Your task to perform on an android device: install app "Booking.com: Hotels and more" Image 0: 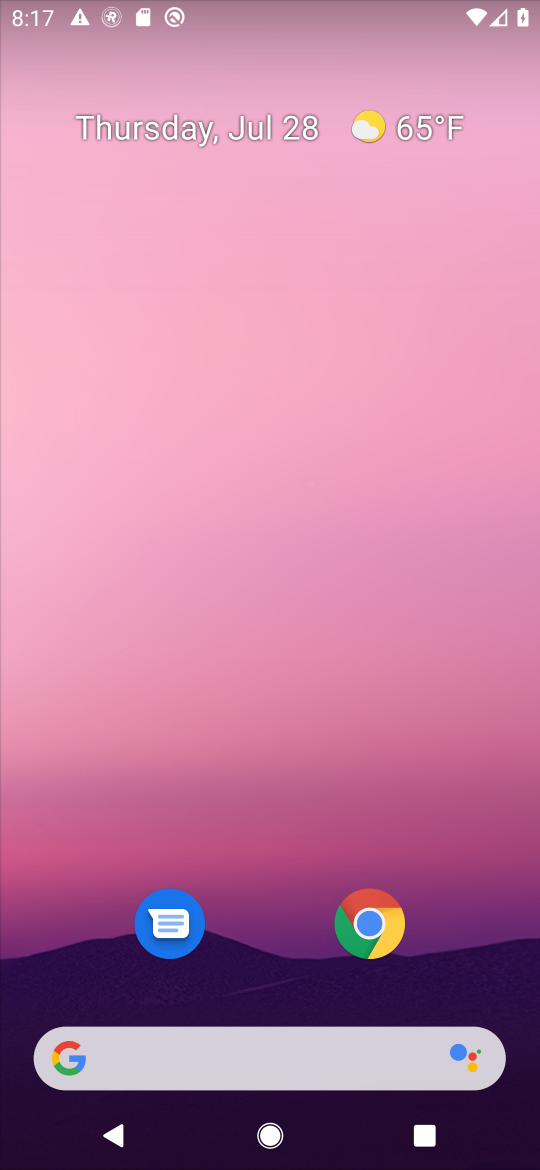
Step 0: drag from (457, 889) to (427, 178)
Your task to perform on an android device: install app "Booking.com: Hotels and more" Image 1: 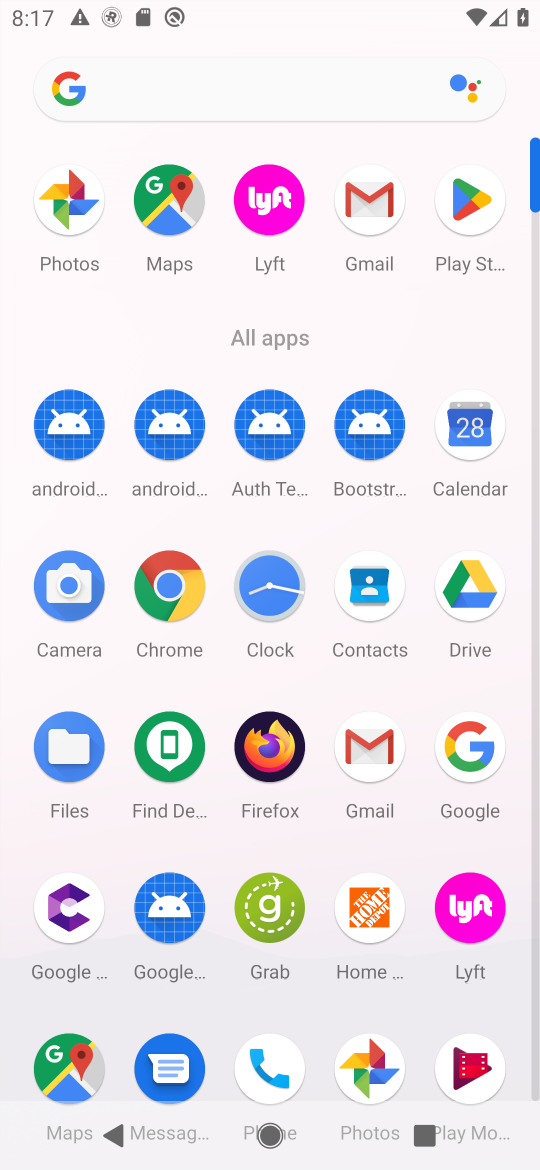
Step 1: click (466, 213)
Your task to perform on an android device: install app "Booking.com: Hotels and more" Image 2: 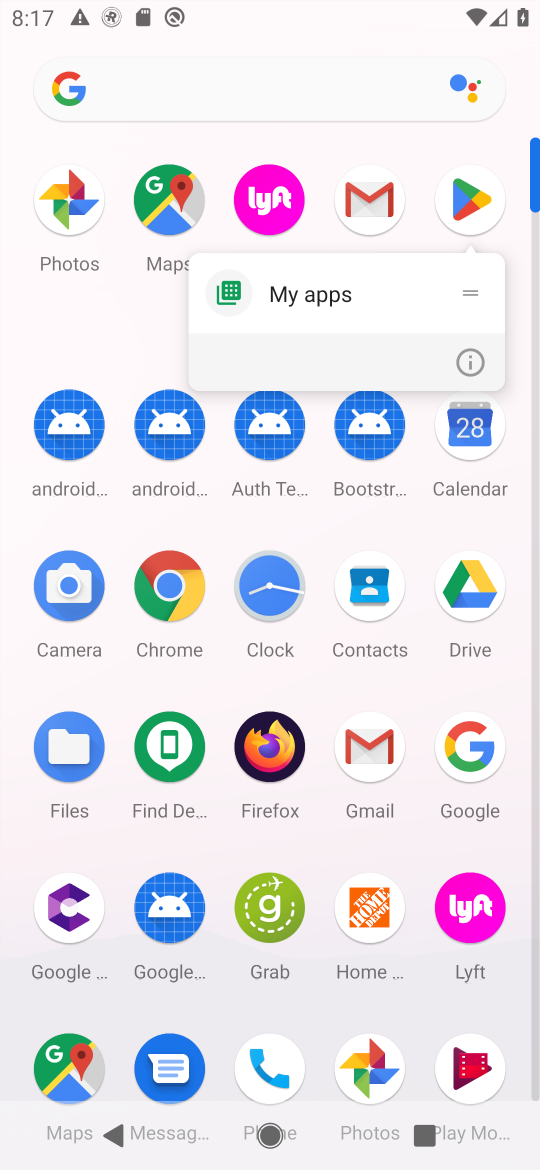
Step 2: click (466, 213)
Your task to perform on an android device: install app "Booking.com: Hotels and more" Image 3: 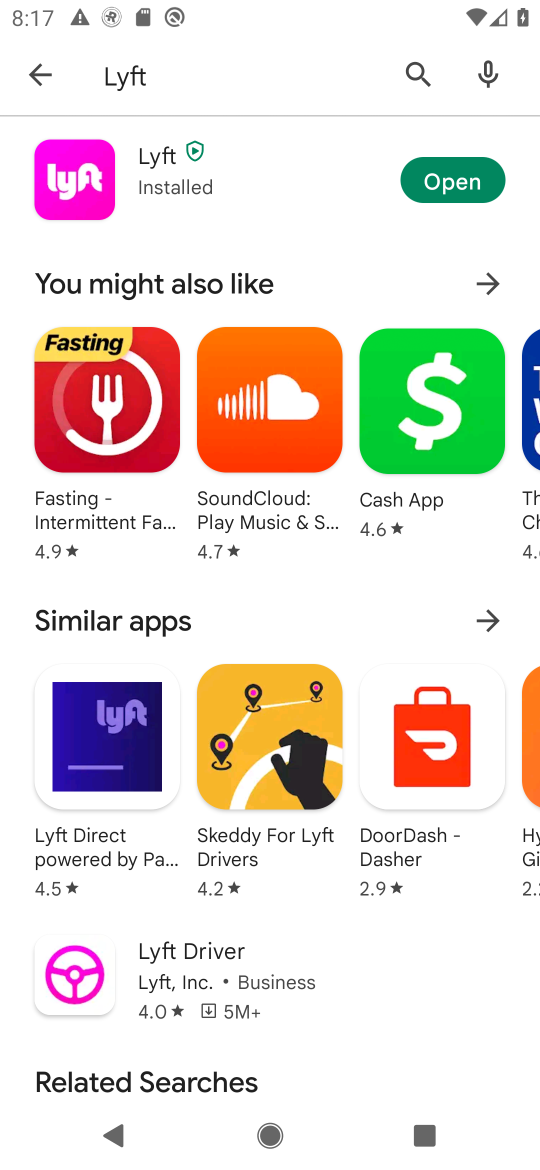
Step 3: click (326, 72)
Your task to perform on an android device: install app "Booking.com: Hotels and more" Image 4: 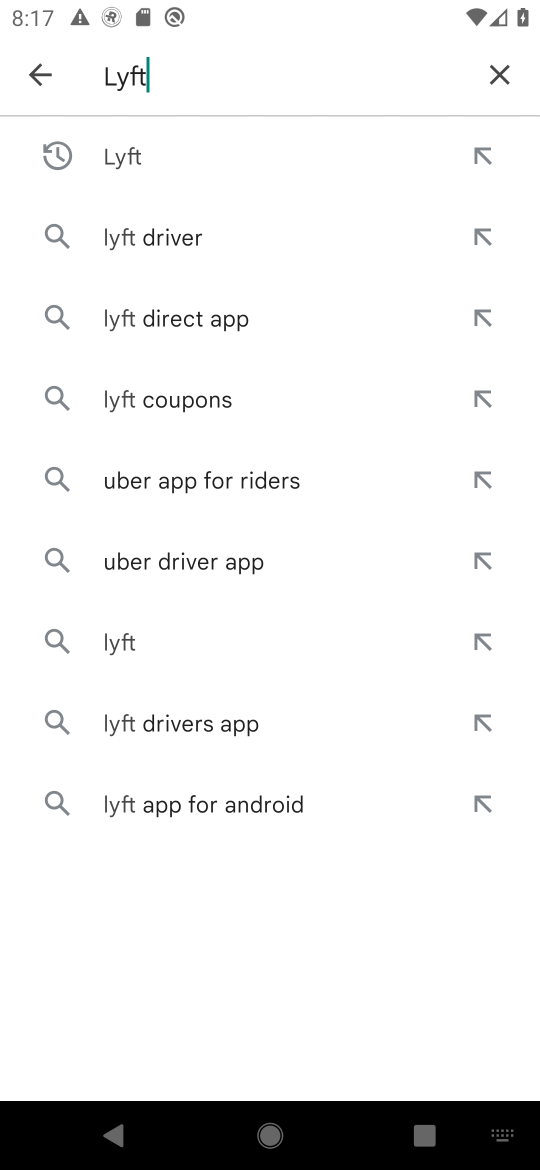
Step 4: click (488, 78)
Your task to perform on an android device: install app "Booking.com: Hotels and more" Image 5: 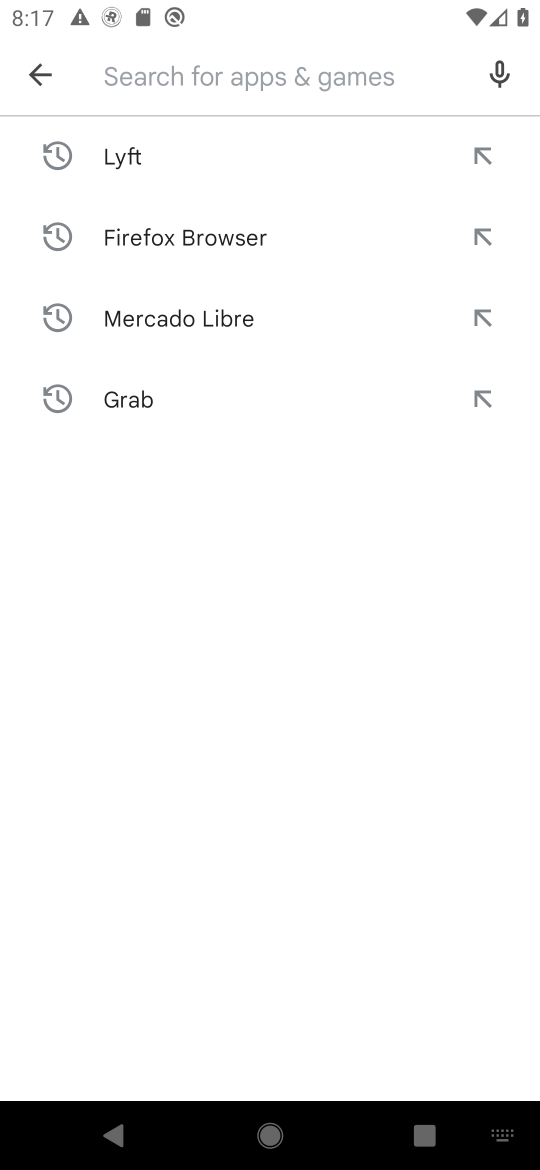
Step 5: click (393, 82)
Your task to perform on an android device: install app "Booking.com: Hotels and more" Image 6: 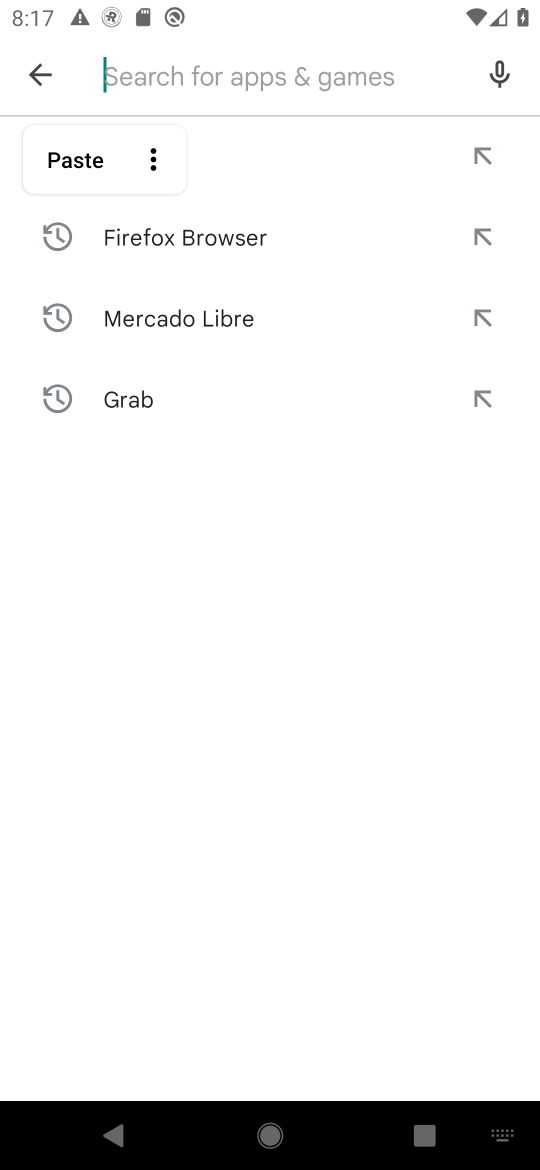
Step 6: type "Booking.com: Hotels and more"
Your task to perform on an android device: install app "Booking.com: Hotels and more" Image 7: 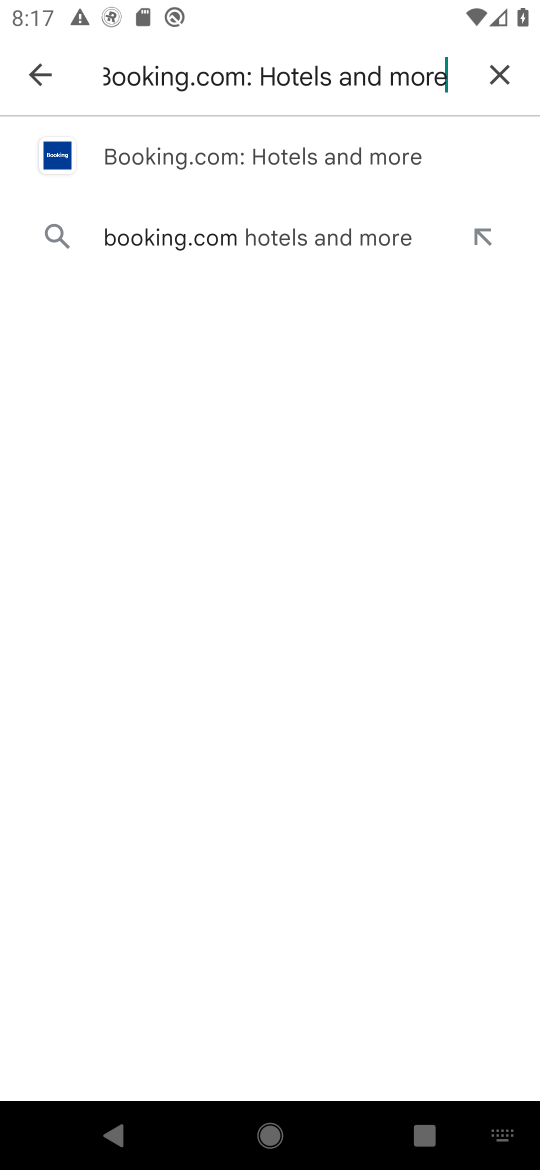
Step 7: click (381, 152)
Your task to perform on an android device: install app "Booking.com: Hotels and more" Image 8: 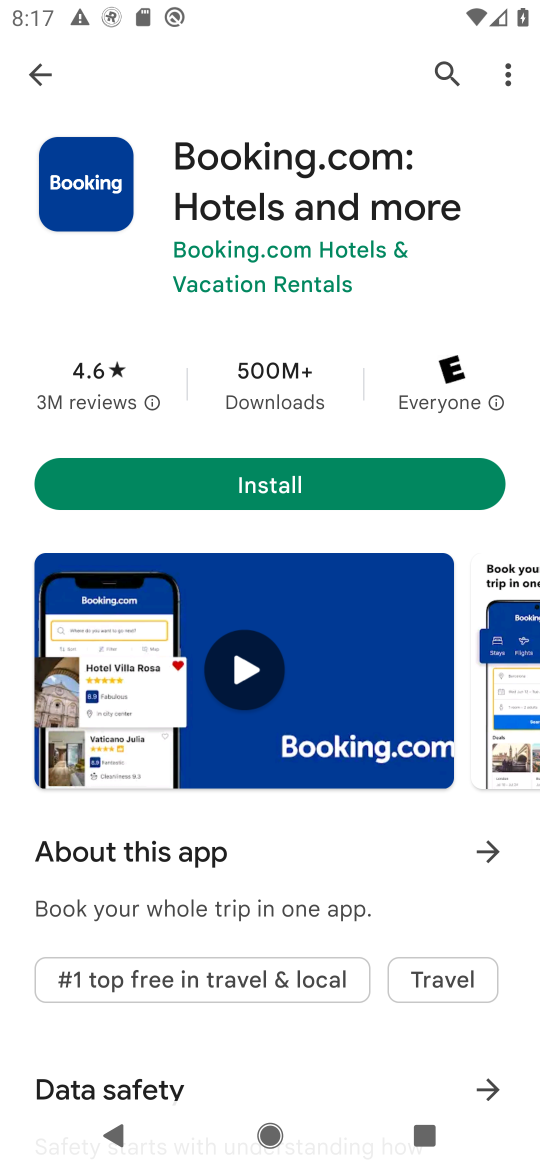
Step 8: click (308, 482)
Your task to perform on an android device: install app "Booking.com: Hotels and more" Image 9: 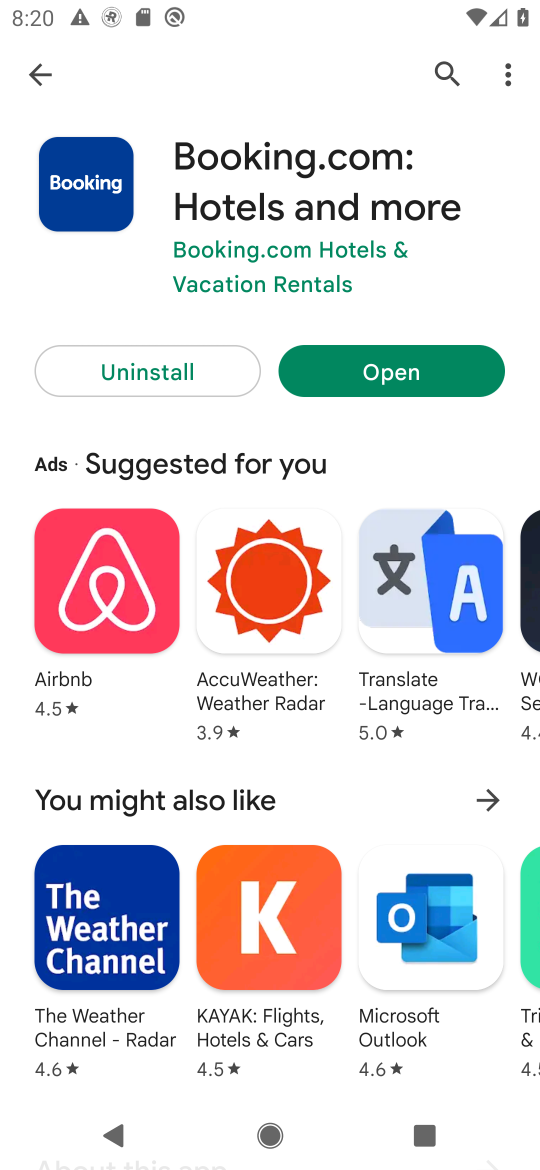
Step 9: task complete